Your task to perform on an android device: Search for Italian restaurants on Maps Image 0: 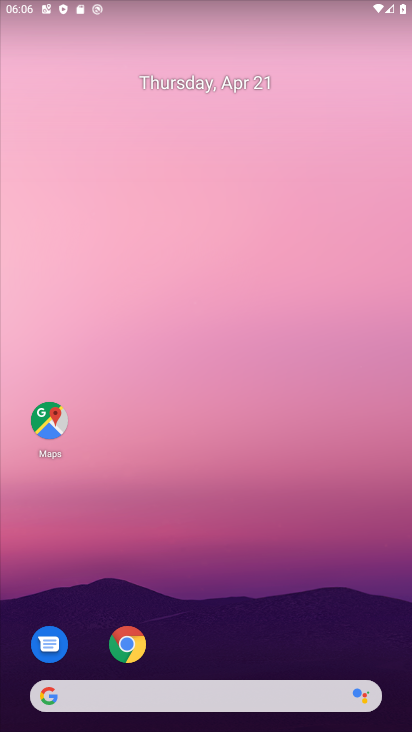
Step 0: click (379, 674)
Your task to perform on an android device: Search for Italian restaurants on Maps Image 1: 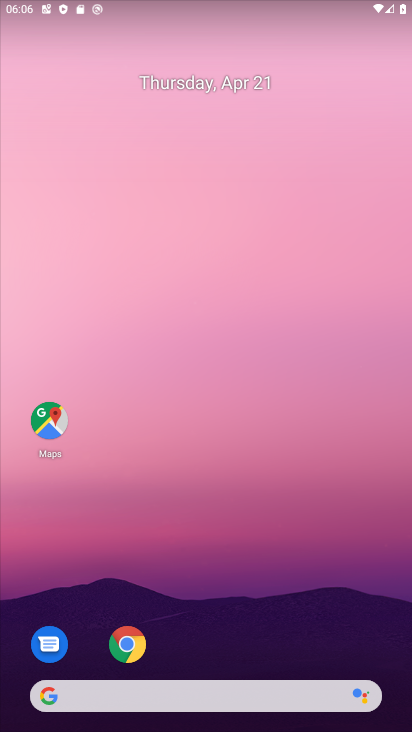
Step 1: click (49, 431)
Your task to perform on an android device: Search for Italian restaurants on Maps Image 2: 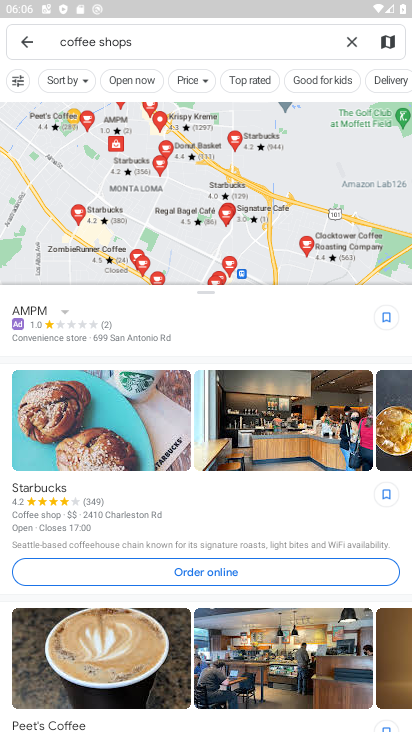
Step 2: click (353, 34)
Your task to perform on an android device: Search for Italian restaurants on Maps Image 3: 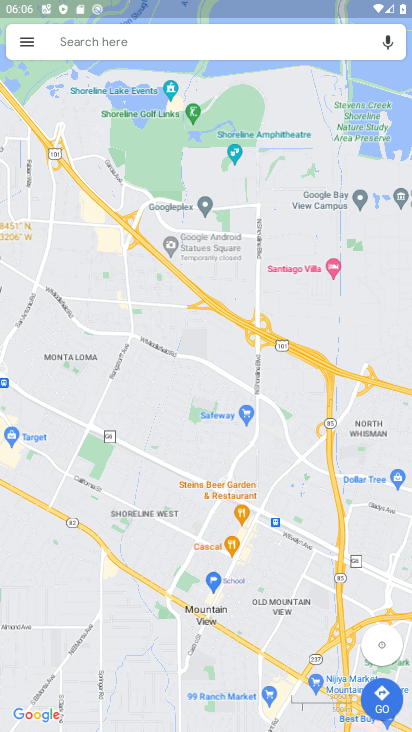
Step 3: click (341, 35)
Your task to perform on an android device: Search for Italian restaurants on Maps Image 4: 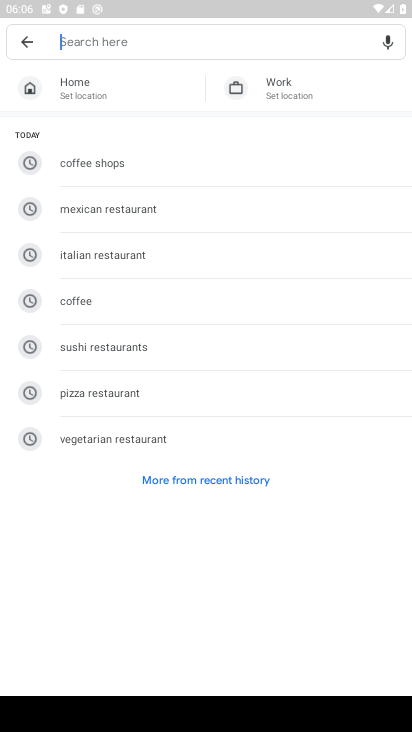
Step 4: click (341, 35)
Your task to perform on an android device: Search for Italian restaurants on Maps Image 5: 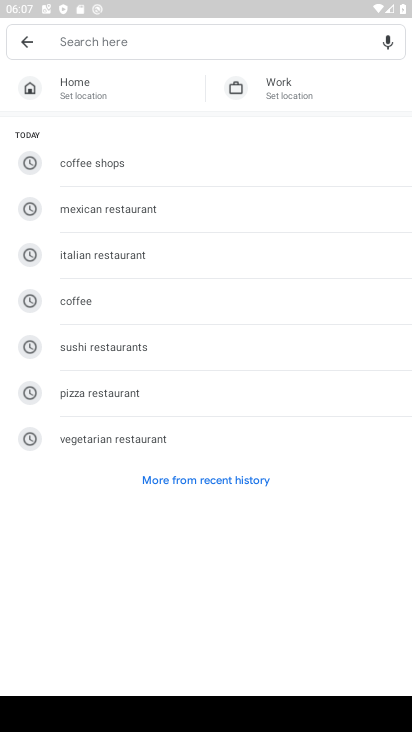
Step 5: type " Italian restaurants "
Your task to perform on an android device: Search for Italian restaurants on Maps Image 6: 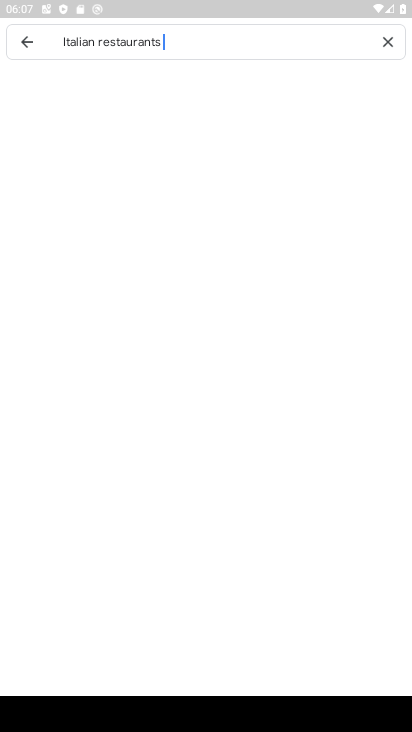
Step 6: type ""
Your task to perform on an android device: Search for Italian restaurants on Maps Image 7: 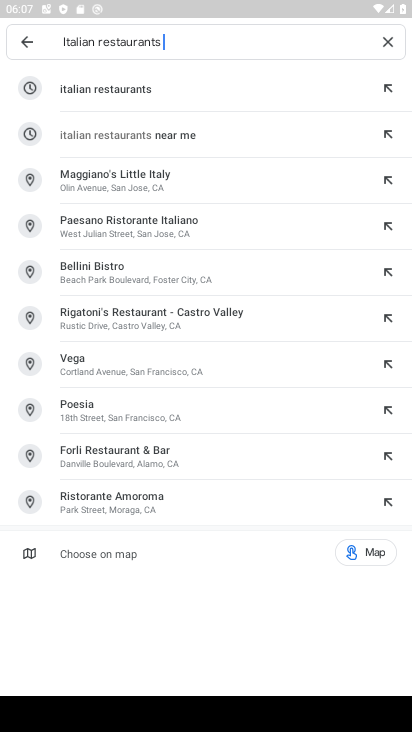
Step 7: click (126, 92)
Your task to perform on an android device: Search for Italian restaurants on Maps Image 8: 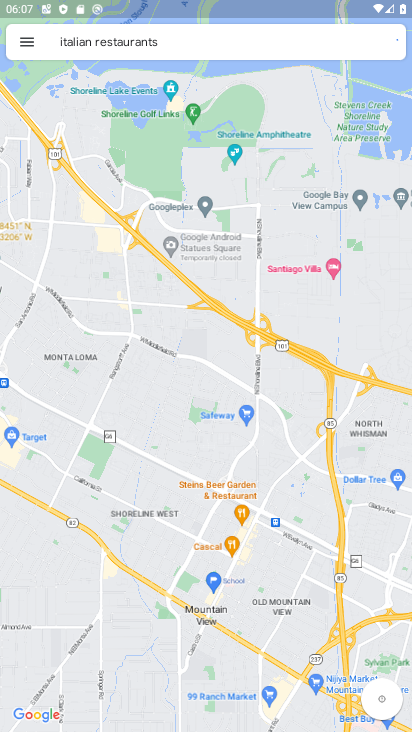
Step 8: task complete